Your task to perform on an android device: Play the last video I watched on Youtube Image 0: 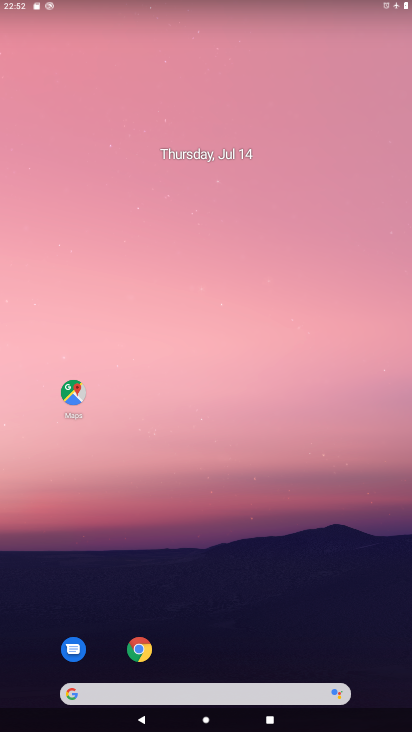
Step 0: drag from (177, 720) to (117, 59)
Your task to perform on an android device: Play the last video I watched on Youtube Image 1: 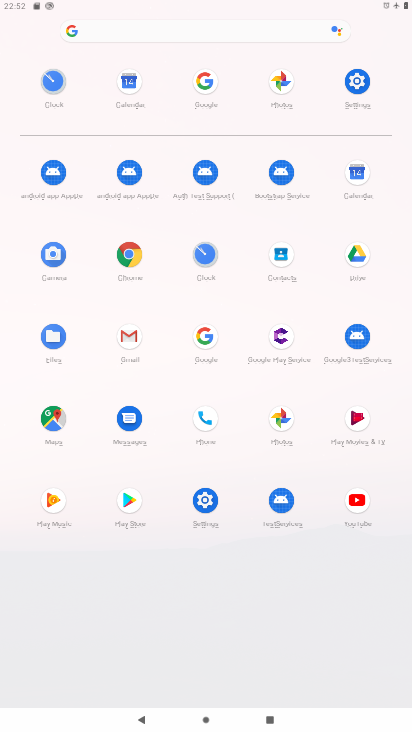
Step 1: click (355, 503)
Your task to perform on an android device: Play the last video I watched on Youtube Image 2: 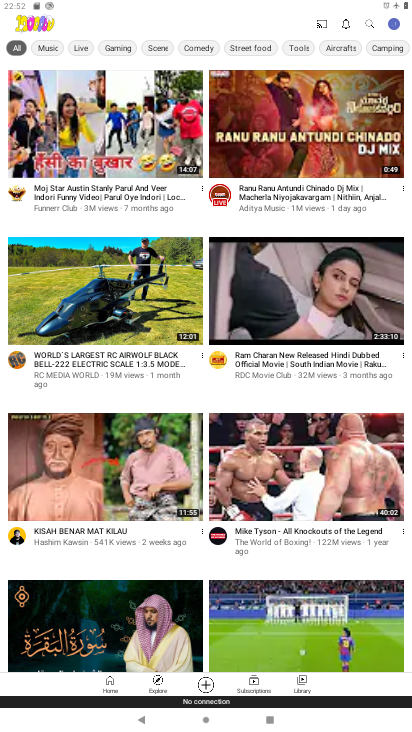
Step 2: click (306, 685)
Your task to perform on an android device: Play the last video I watched on Youtube Image 3: 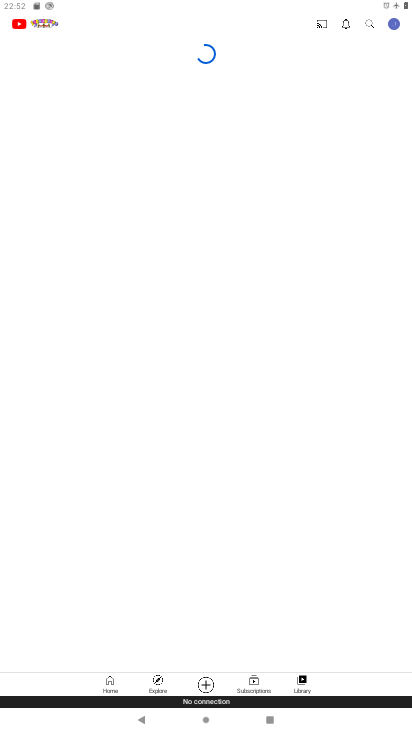
Step 3: task complete